Your task to perform on an android device: add a contact Image 0: 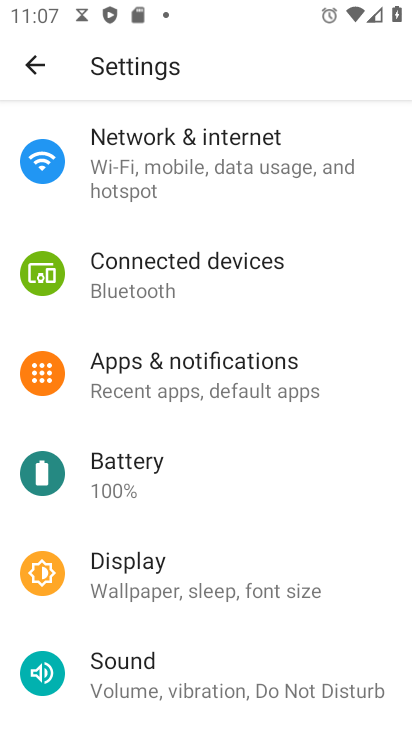
Step 0: press home button
Your task to perform on an android device: add a contact Image 1: 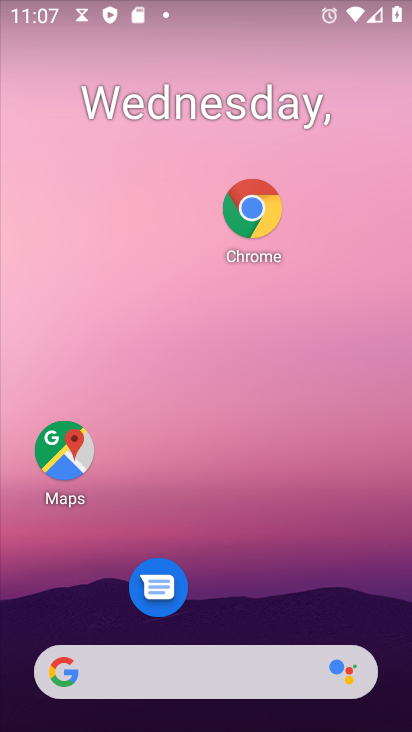
Step 1: drag from (205, 636) to (226, 191)
Your task to perform on an android device: add a contact Image 2: 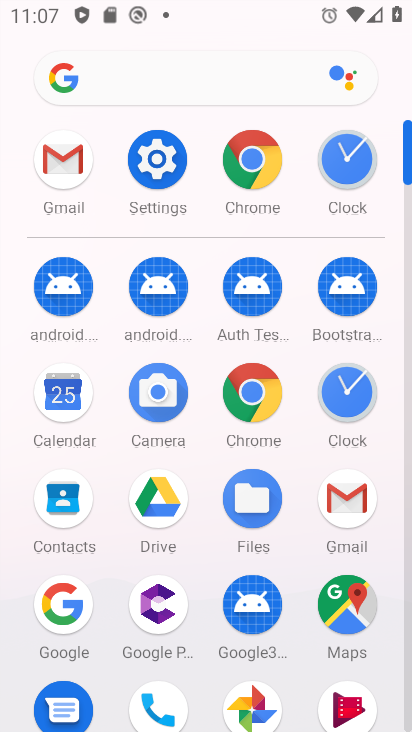
Step 2: click (63, 539)
Your task to perform on an android device: add a contact Image 3: 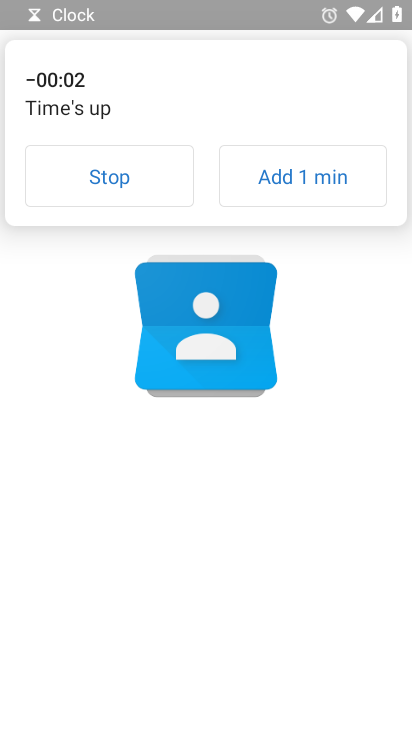
Step 3: click (95, 177)
Your task to perform on an android device: add a contact Image 4: 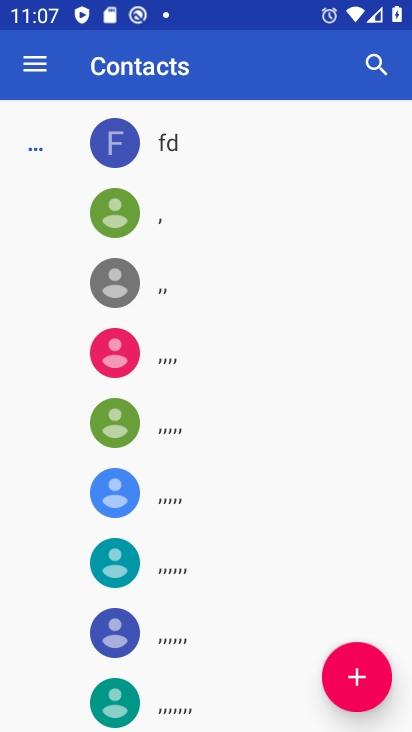
Step 4: click (358, 693)
Your task to perform on an android device: add a contact Image 5: 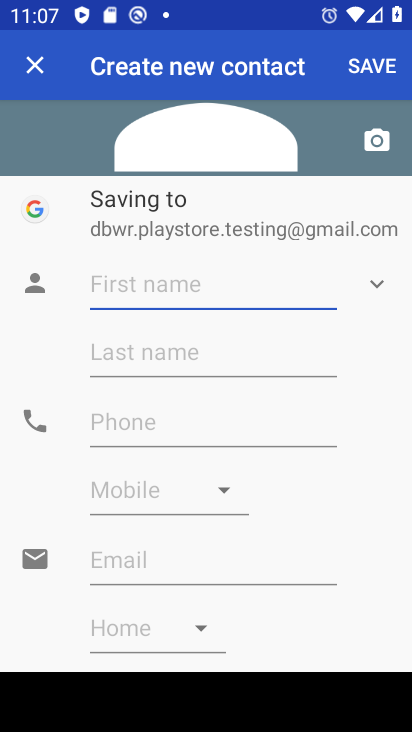
Step 5: type "Nargis"
Your task to perform on an android device: add a contact Image 6: 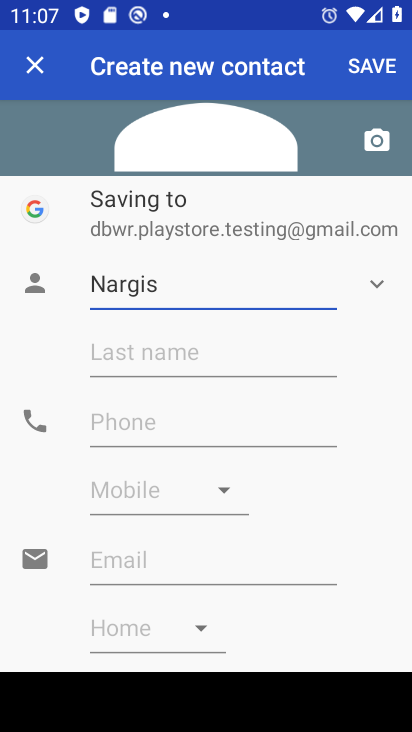
Step 6: click (239, 352)
Your task to perform on an android device: add a contact Image 7: 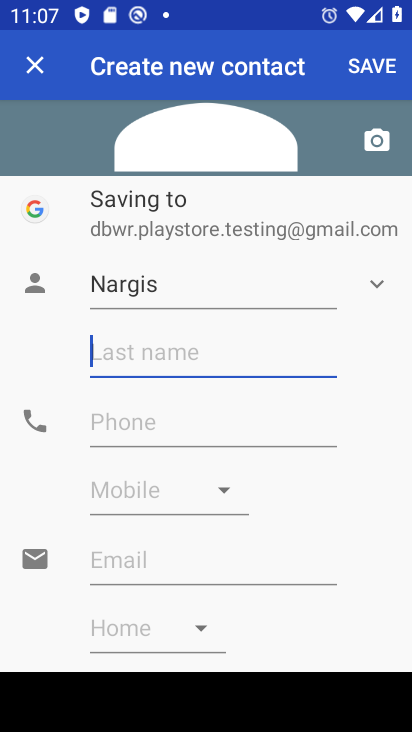
Step 7: type "Khatoon"
Your task to perform on an android device: add a contact Image 8: 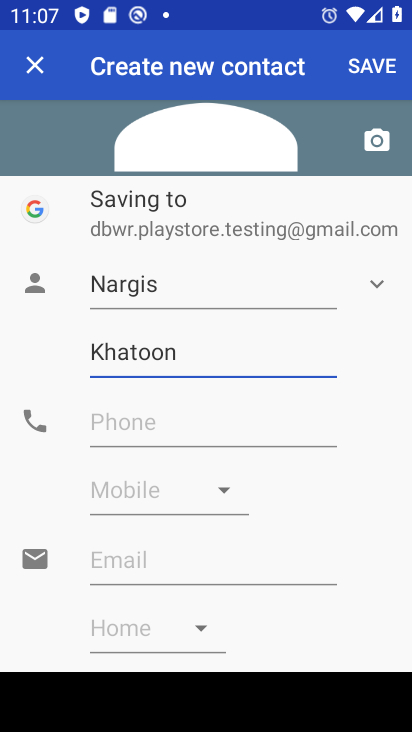
Step 8: click (251, 429)
Your task to perform on an android device: add a contact Image 9: 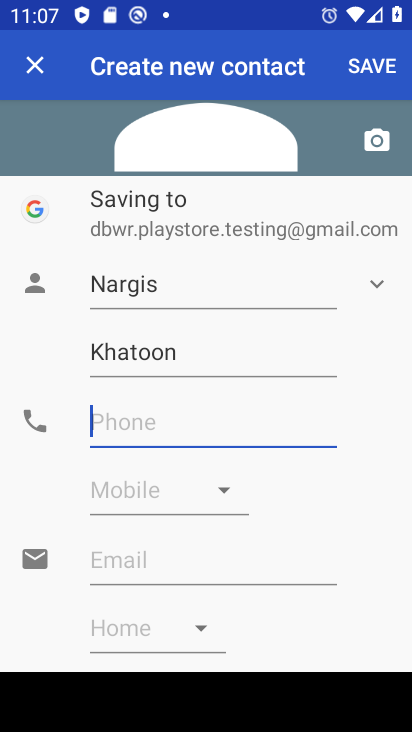
Step 9: type "7878909099"
Your task to perform on an android device: add a contact Image 10: 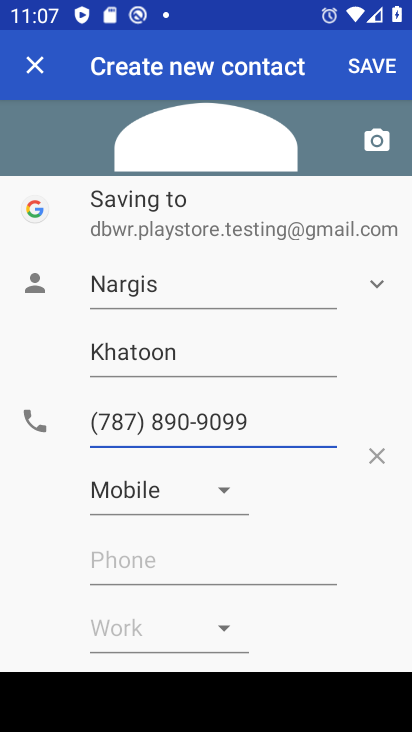
Step 10: click (373, 64)
Your task to perform on an android device: add a contact Image 11: 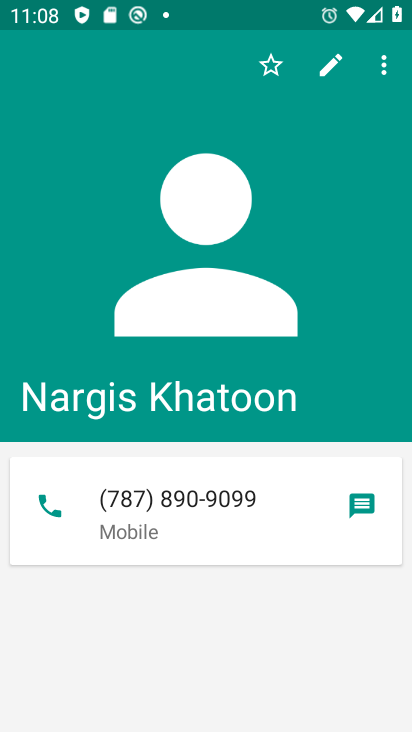
Step 11: task complete